Your task to perform on an android device: change notifications settings Image 0: 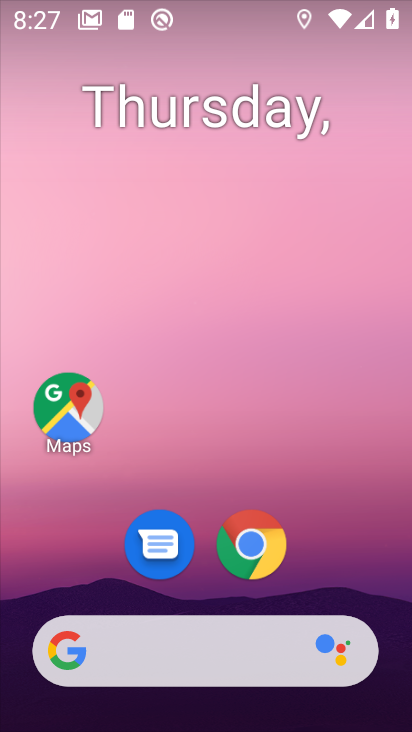
Step 0: drag from (390, 588) to (310, 19)
Your task to perform on an android device: change notifications settings Image 1: 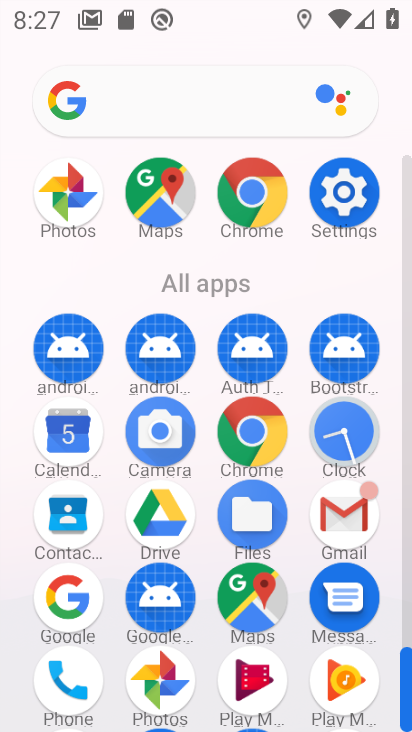
Step 1: drag from (16, 616) to (21, 266)
Your task to perform on an android device: change notifications settings Image 2: 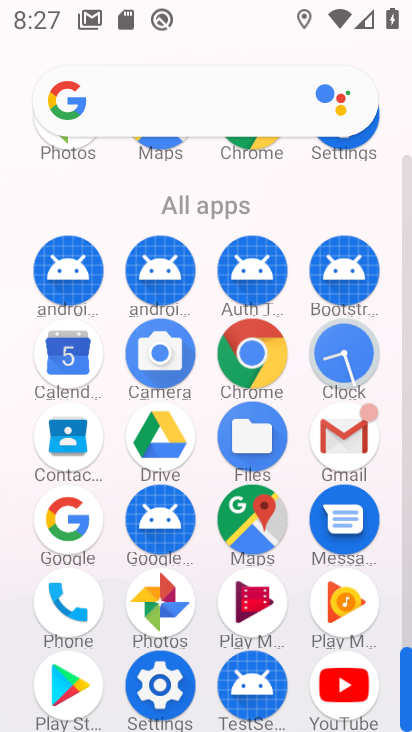
Step 2: click (159, 682)
Your task to perform on an android device: change notifications settings Image 3: 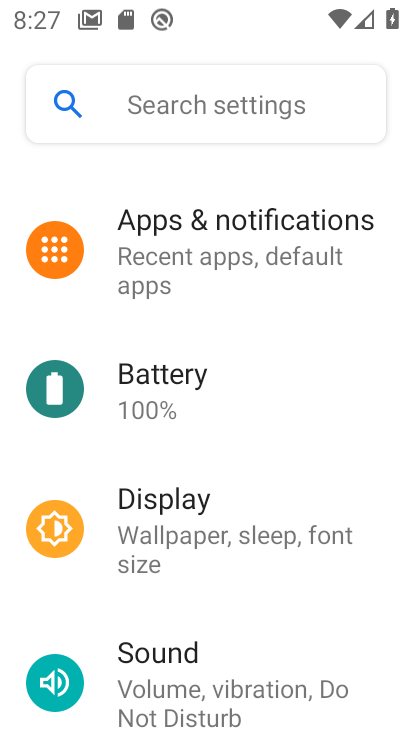
Step 3: click (202, 241)
Your task to perform on an android device: change notifications settings Image 4: 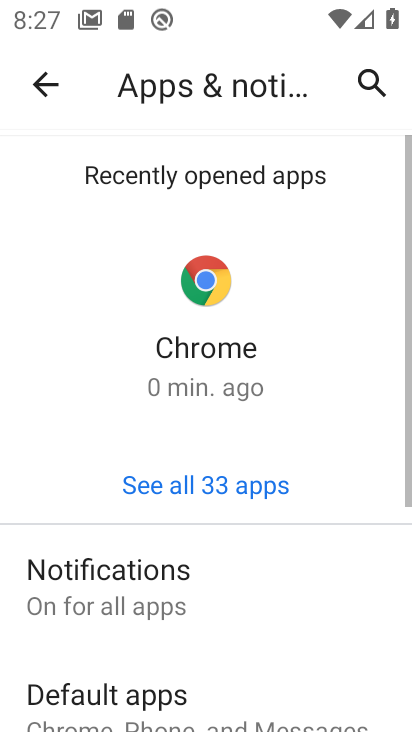
Step 4: click (177, 611)
Your task to perform on an android device: change notifications settings Image 5: 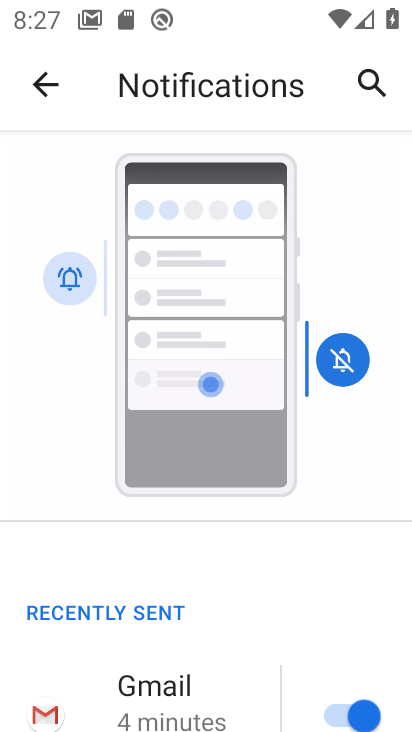
Step 5: drag from (232, 578) to (235, 179)
Your task to perform on an android device: change notifications settings Image 6: 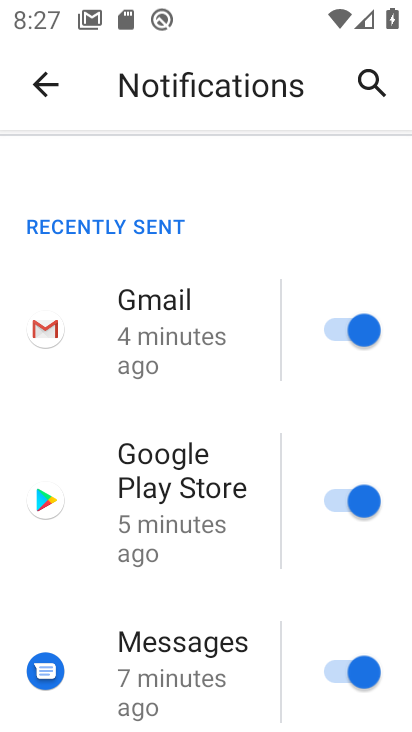
Step 6: drag from (225, 664) to (249, 189)
Your task to perform on an android device: change notifications settings Image 7: 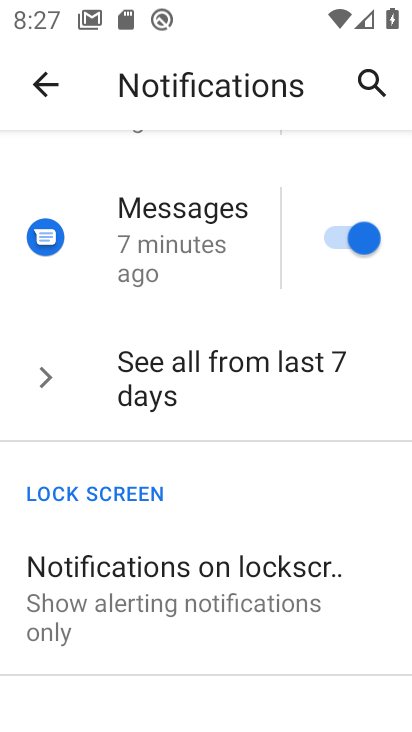
Step 7: drag from (199, 627) to (235, 309)
Your task to perform on an android device: change notifications settings Image 8: 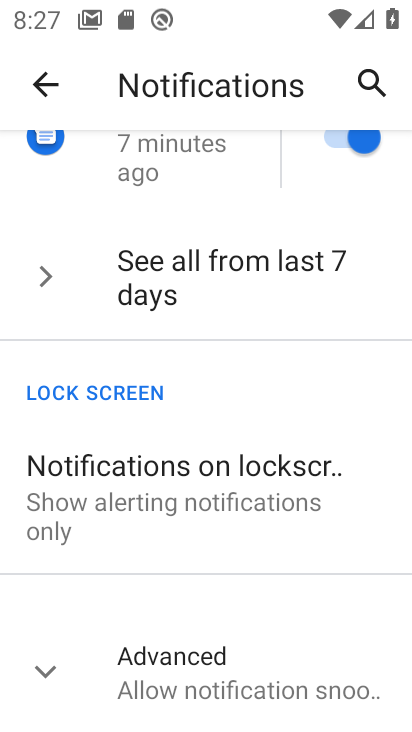
Step 8: click (212, 482)
Your task to perform on an android device: change notifications settings Image 9: 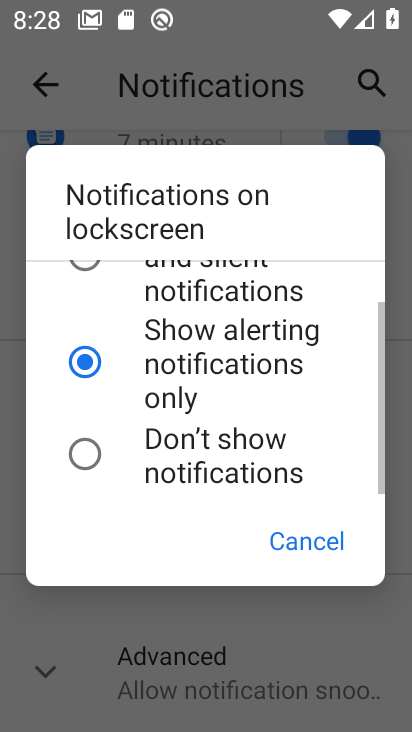
Step 9: click (178, 283)
Your task to perform on an android device: change notifications settings Image 10: 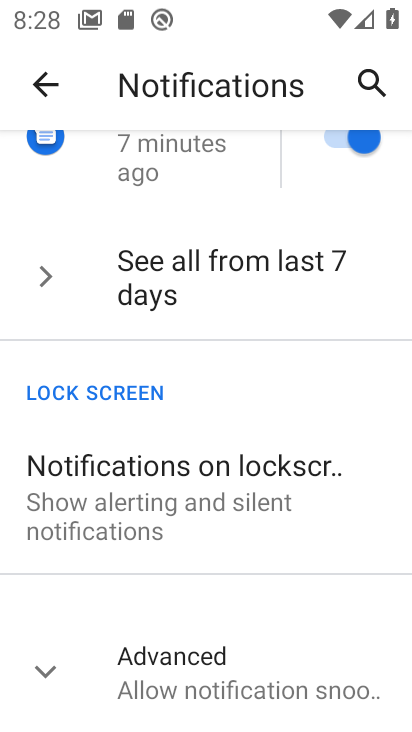
Step 10: task complete